Your task to perform on an android device: Search for pizza restaurants on Maps Image 0: 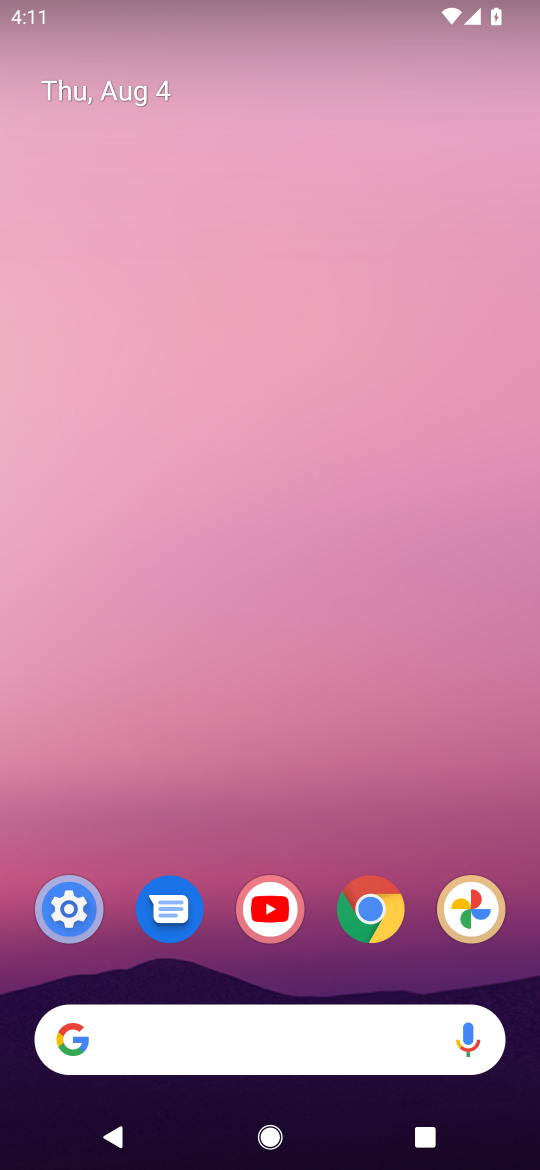
Step 0: press home button
Your task to perform on an android device: Search for pizza restaurants on Maps Image 1: 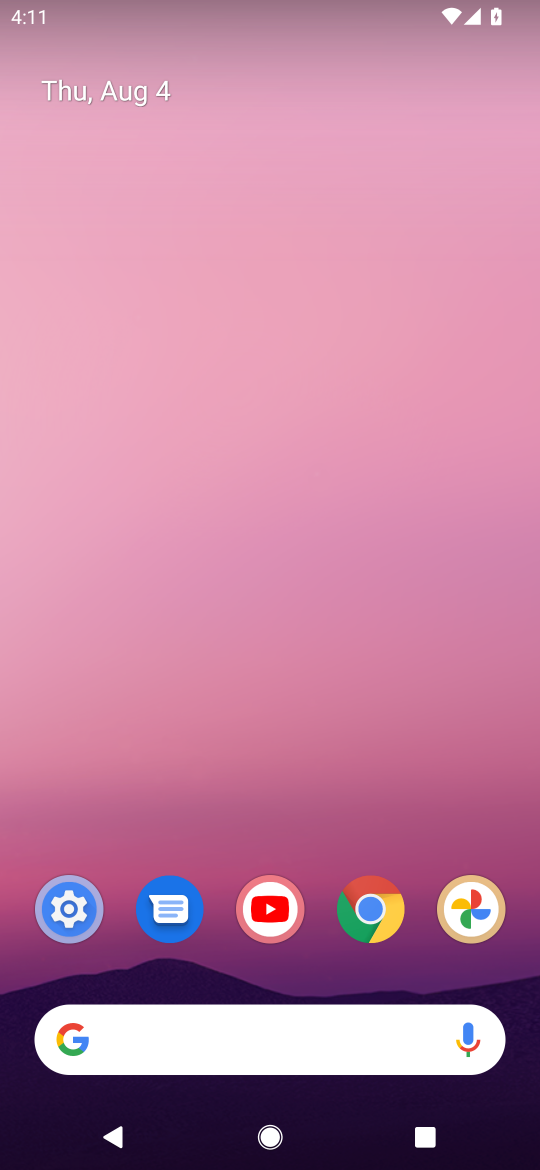
Step 1: drag from (280, 820) to (494, 260)
Your task to perform on an android device: Search for pizza restaurants on Maps Image 2: 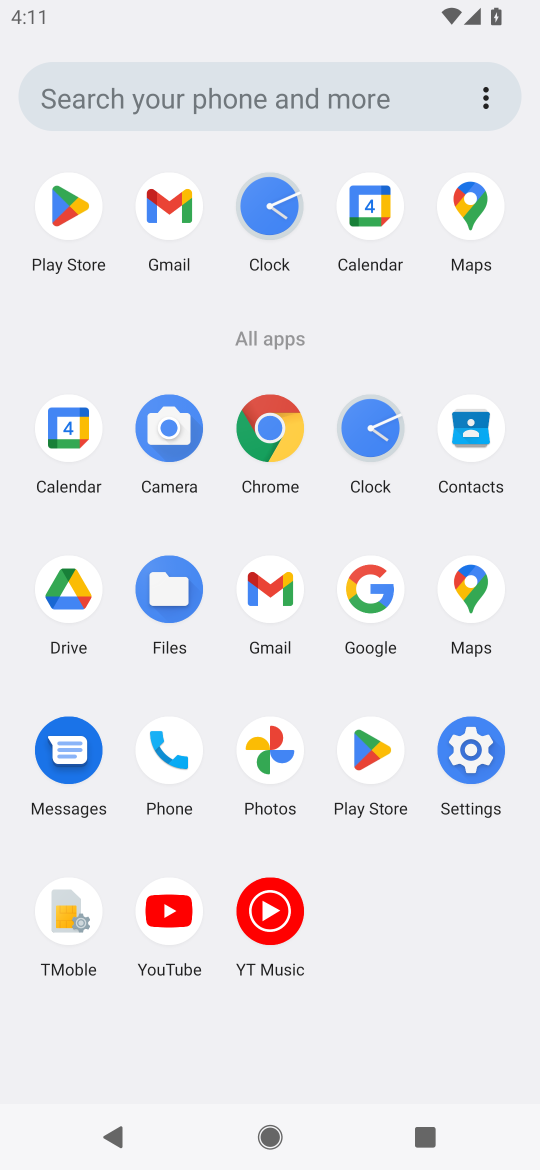
Step 2: click (475, 606)
Your task to perform on an android device: Search for pizza restaurants on Maps Image 3: 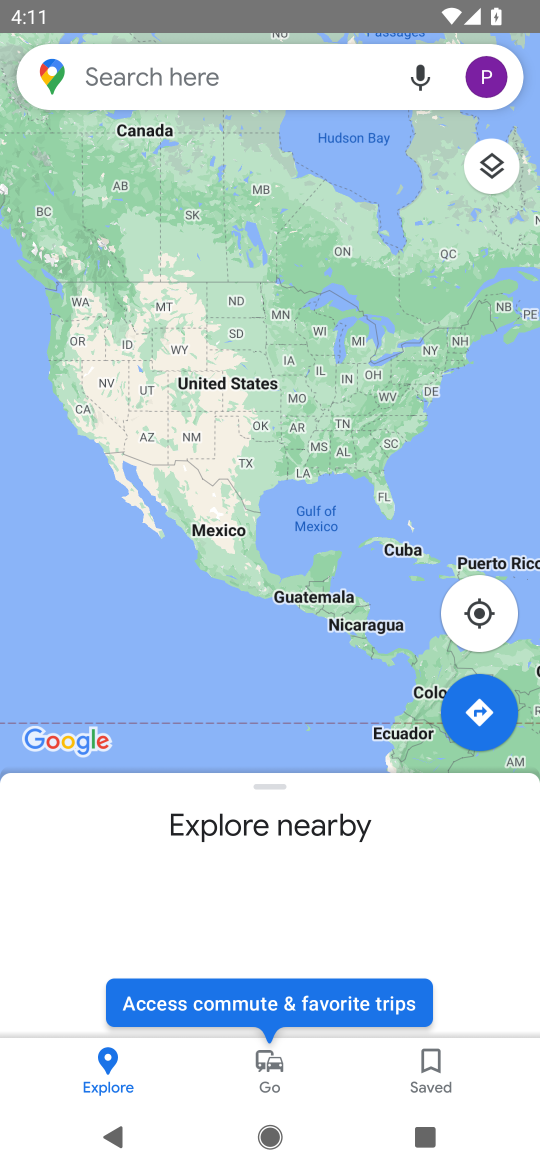
Step 3: type " pizza restaurants "
Your task to perform on an android device: Search for pizza restaurants on Maps Image 4: 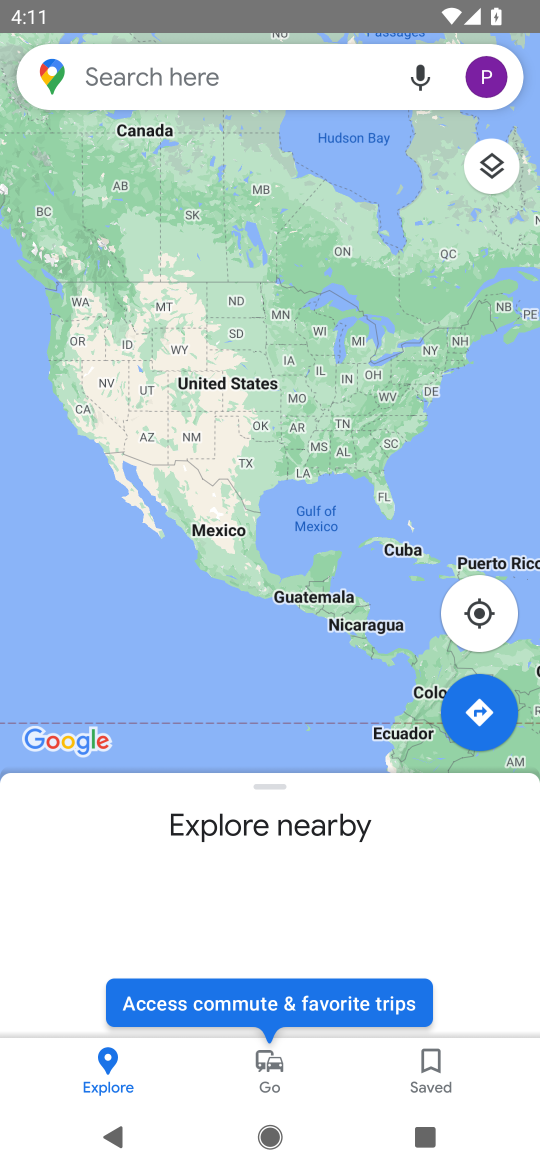
Step 4: click (257, 74)
Your task to perform on an android device: Search for pizza restaurants on Maps Image 5: 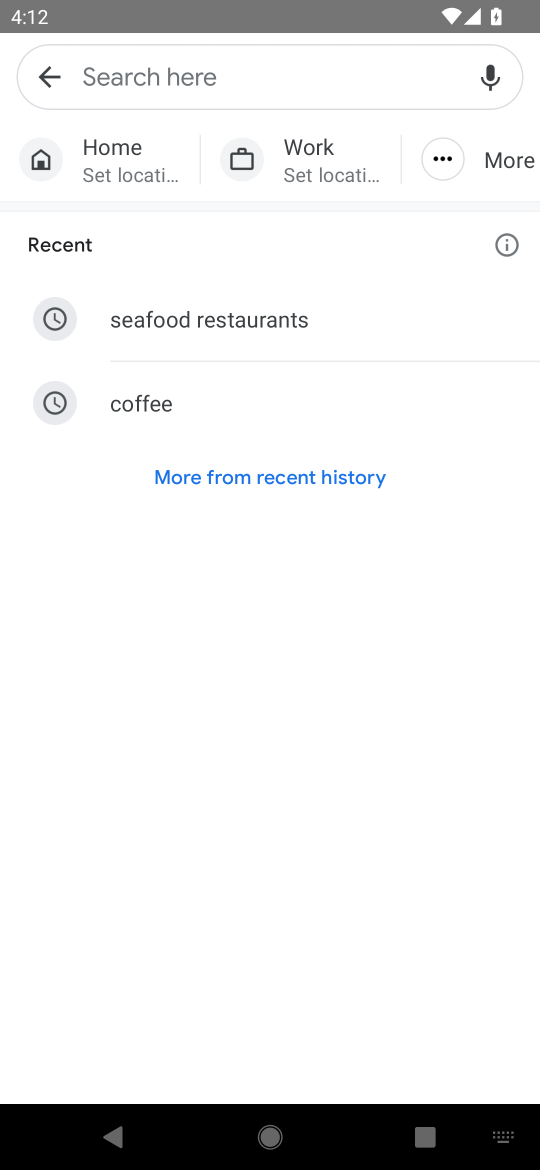
Step 5: click (252, 79)
Your task to perform on an android device: Search for pizza restaurants on Maps Image 6: 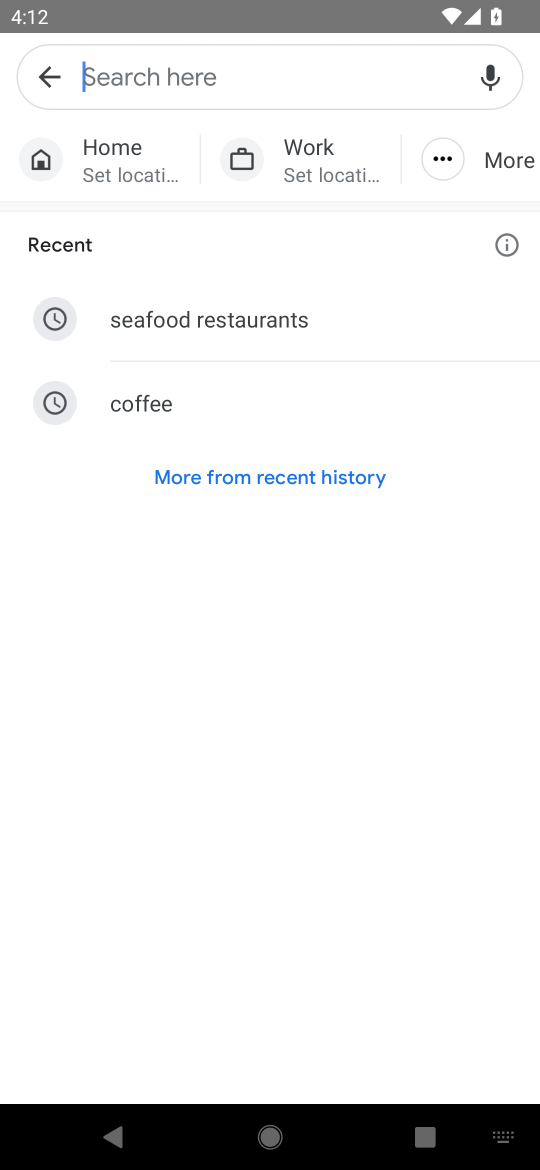
Step 6: type " pizza restaurants "
Your task to perform on an android device: Search for pizza restaurants on Maps Image 7: 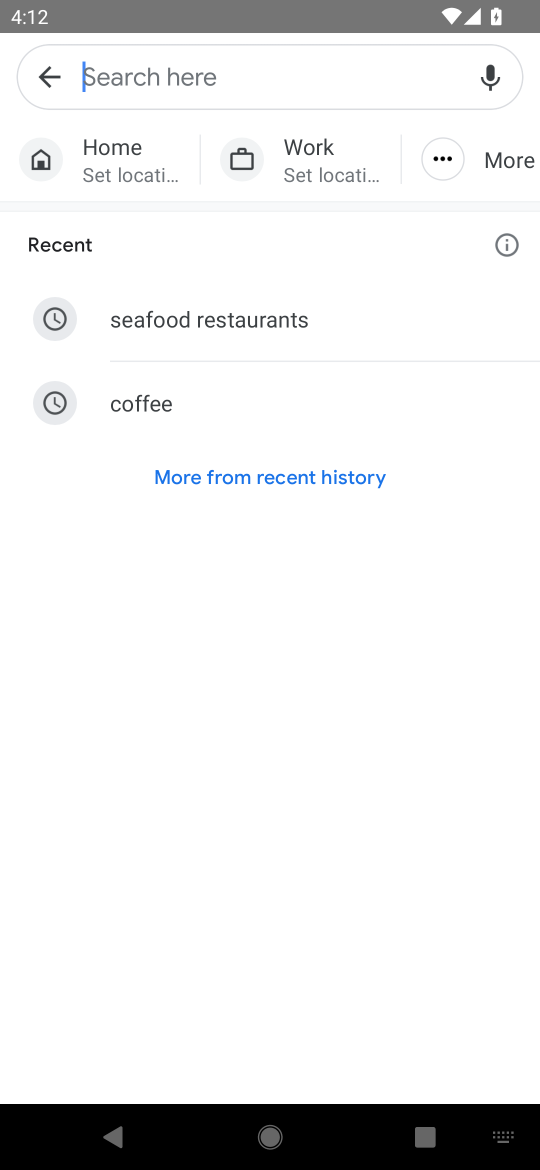
Step 7: click (162, 67)
Your task to perform on an android device: Search for pizza restaurants on Maps Image 8: 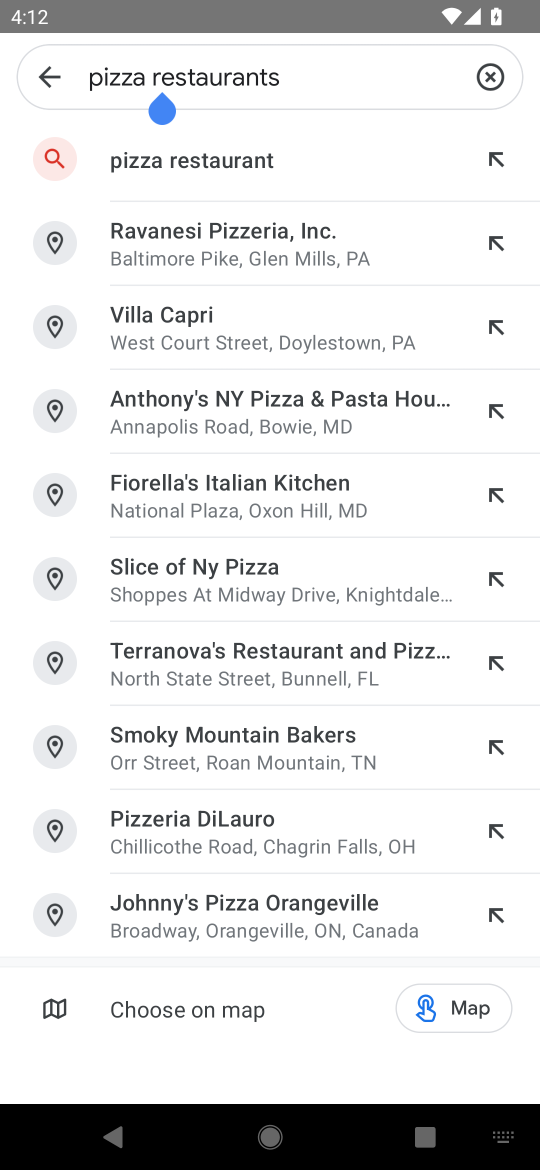
Step 8: click (165, 163)
Your task to perform on an android device: Search for pizza restaurants on Maps Image 9: 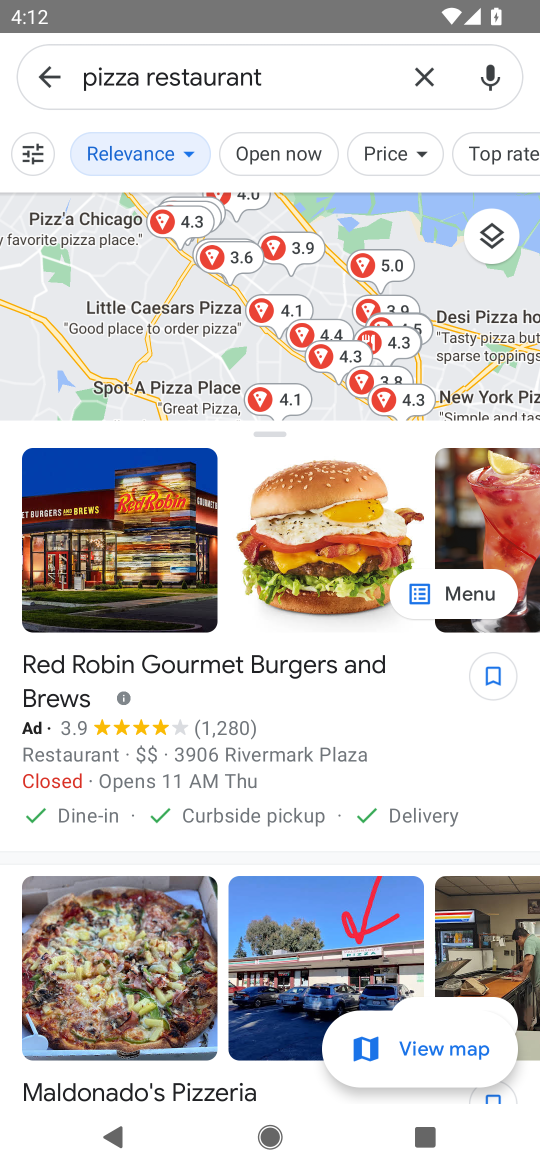
Step 9: task complete